Your task to perform on an android device: Open location settings Image 0: 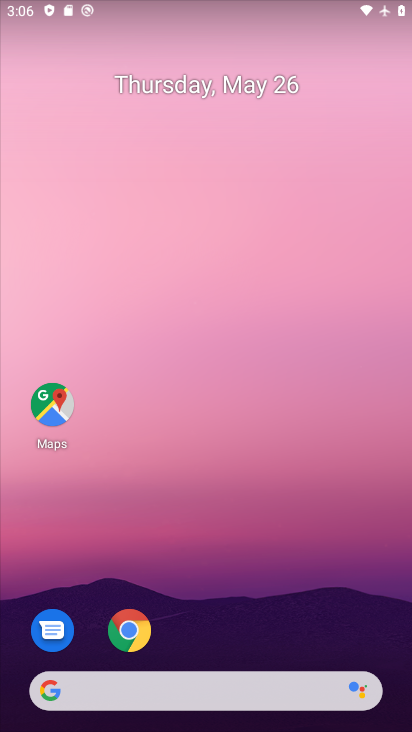
Step 0: drag from (267, 626) to (225, 52)
Your task to perform on an android device: Open location settings Image 1: 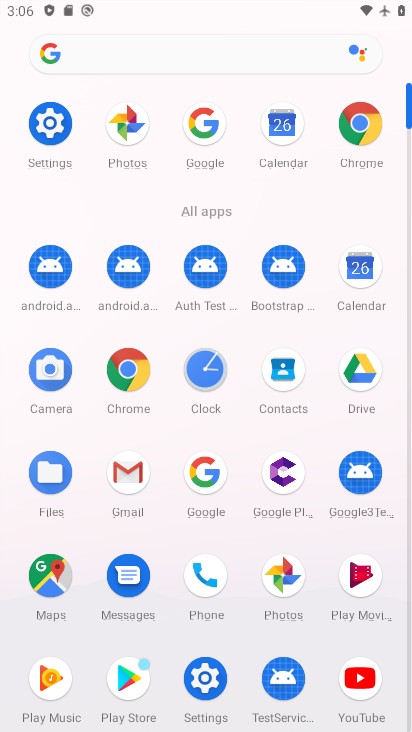
Step 1: click (204, 679)
Your task to perform on an android device: Open location settings Image 2: 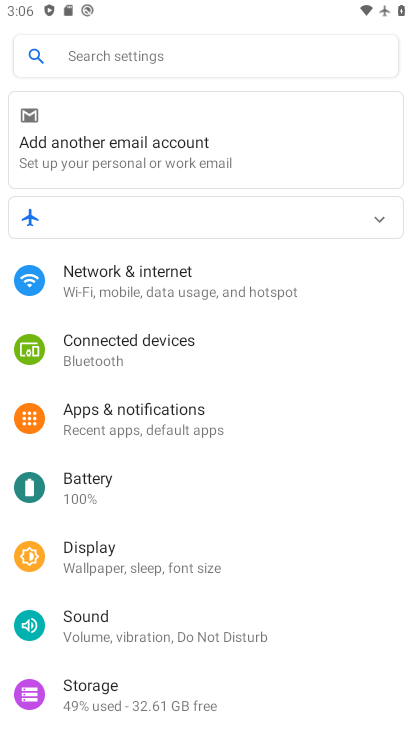
Step 2: drag from (151, 531) to (155, 447)
Your task to perform on an android device: Open location settings Image 3: 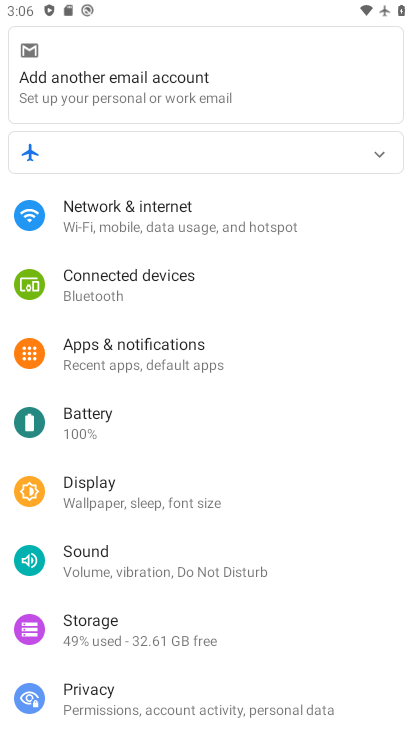
Step 3: drag from (141, 653) to (192, 563)
Your task to perform on an android device: Open location settings Image 4: 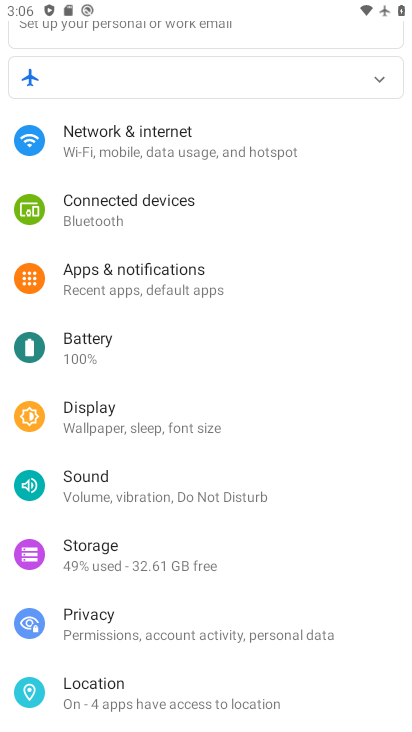
Step 4: drag from (144, 665) to (218, 570)
Your task to perform on an android device: Open location settings Image 5: 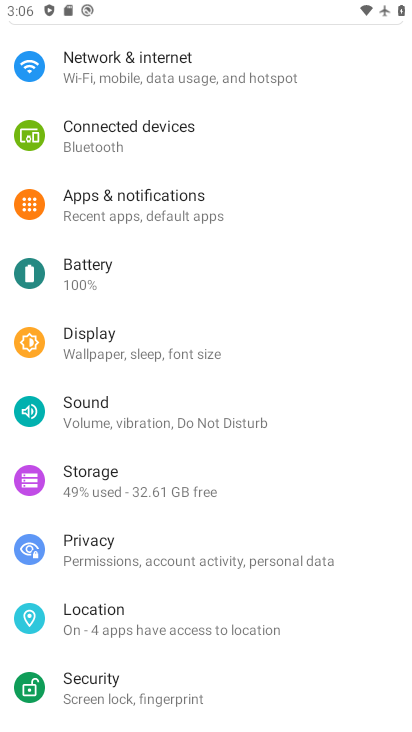
Step 5: click (128, 627)
Your task to perform on an android device: Open location settings Image 6: 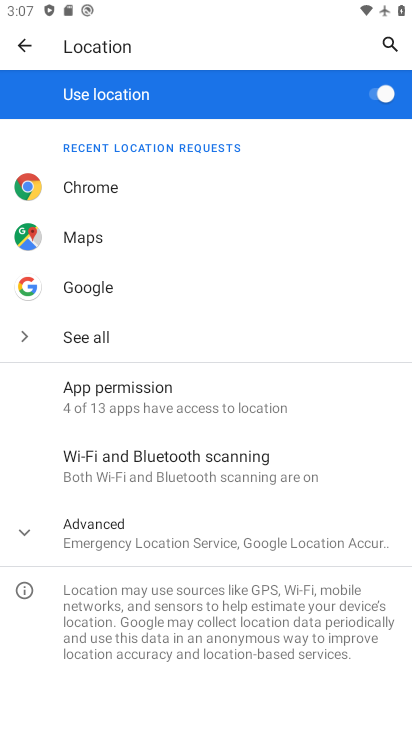
Step 6: task complete